Your task to perform on an android device: Open calendar and show me the third week of next month Image 0: 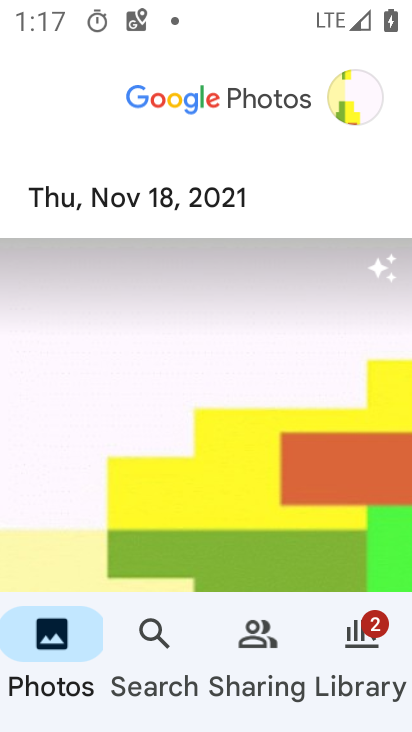
Step 0: press home button
Your task to perform on an android device: Open calendar and show me the third week of next month Image 1: 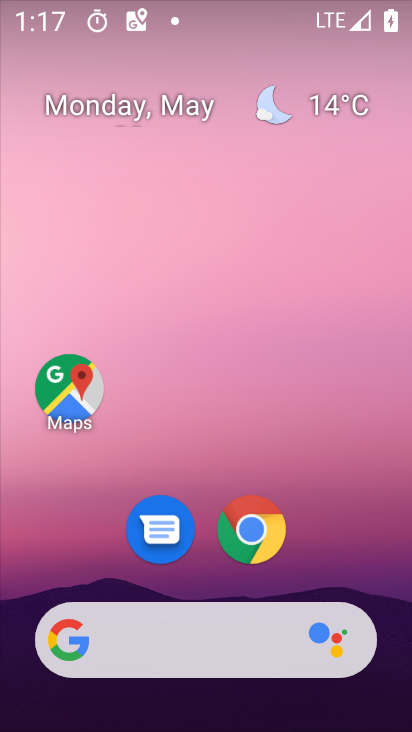
Step 1: drag from (385, 587) to (371, 198)
Your task to perform on an android device: Open calendar and show me the third week of next month Image 2: 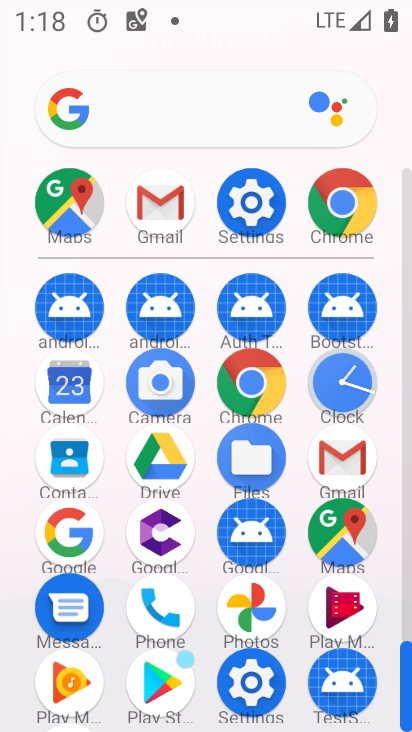
Step 2: click (66, 401)
Your task to perform on an android device: Open calendar and show me the third week of next month Image 3: 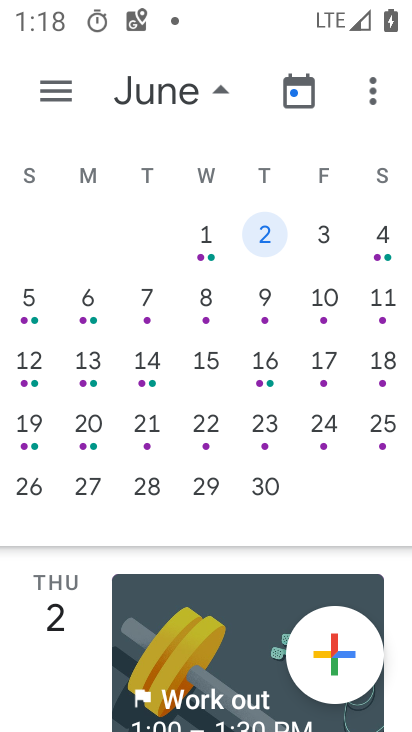
Step 3: click (86, 365)
Your task to perform on an android device: Open calendar and show me the third week of next month Image 4: 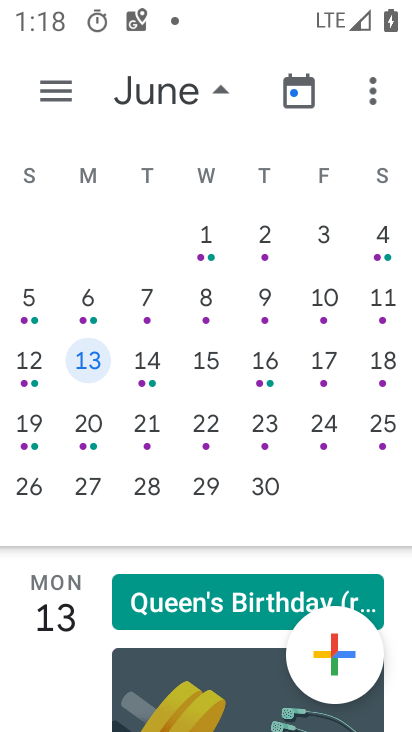
Step 4: task complete